Your task to perform on an android device: Open Google Chrome and open the bookmarks view Image 0: 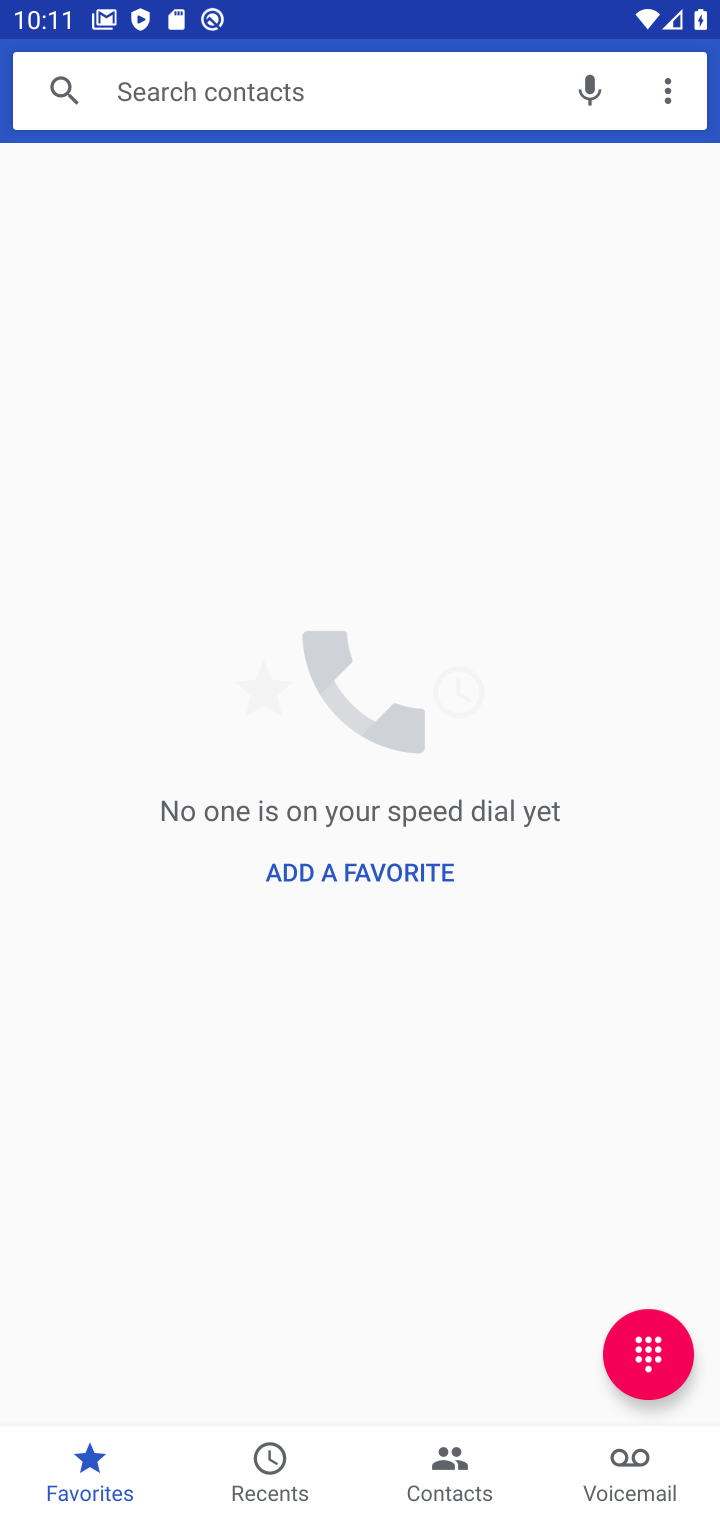
Step 0: press back button
Your task to perform on an android device: Open Google Chrome and open the bookmarks view Image 1: 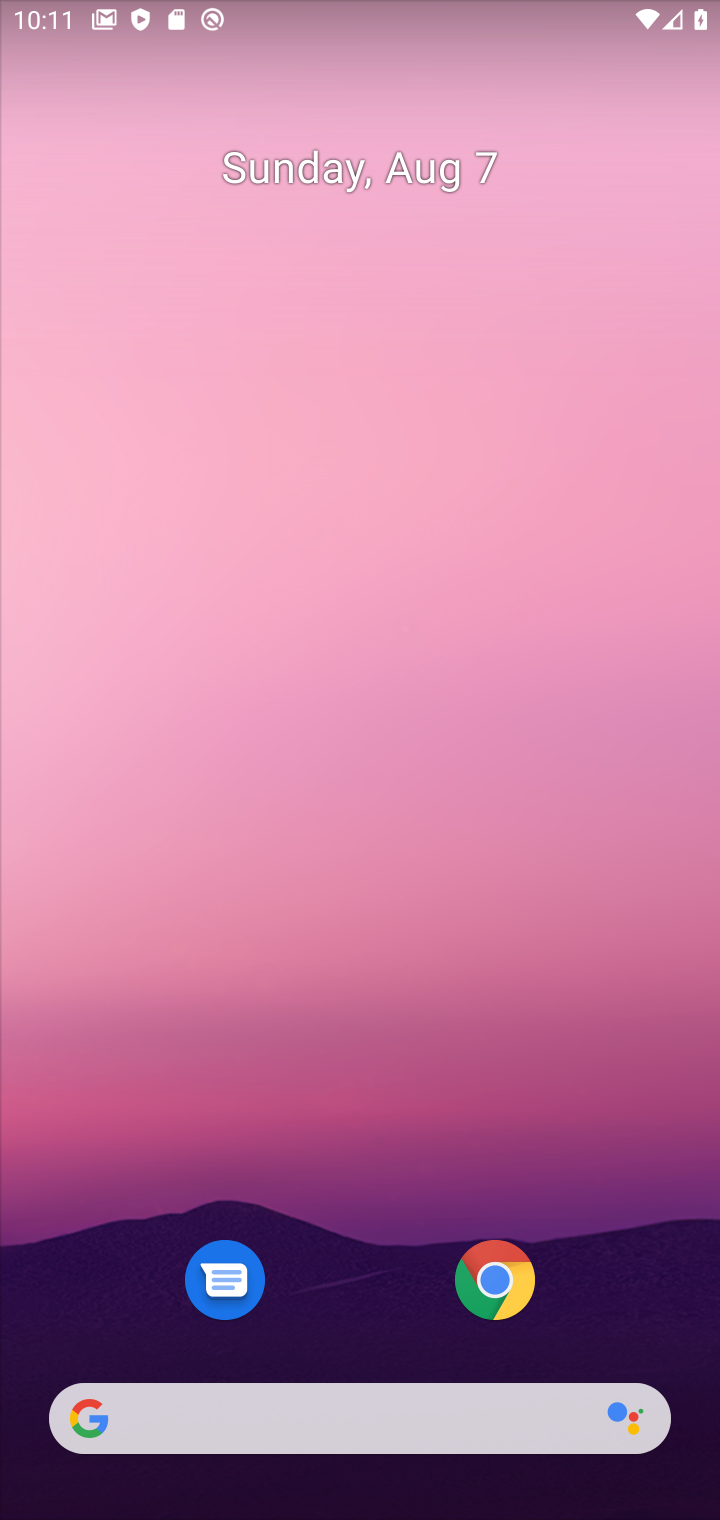
Step 1: click (520, 1259)
Your task to perform on an android device: Open Google Chrome and open the bookmarks view Image 2: 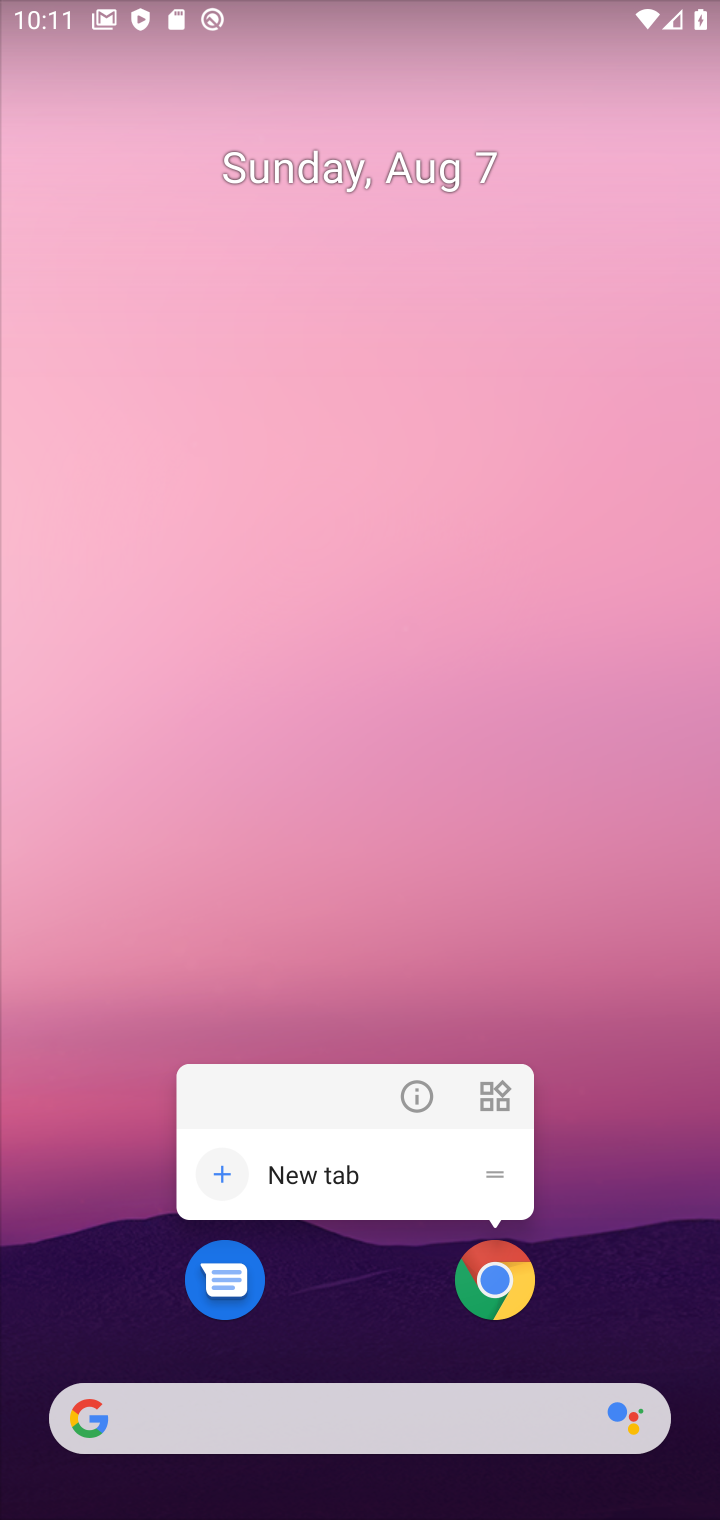
Step 2: click (487, 1261)
Your task to perform on an android device: Open Google Chrome and open the bookmarks view Image 3: 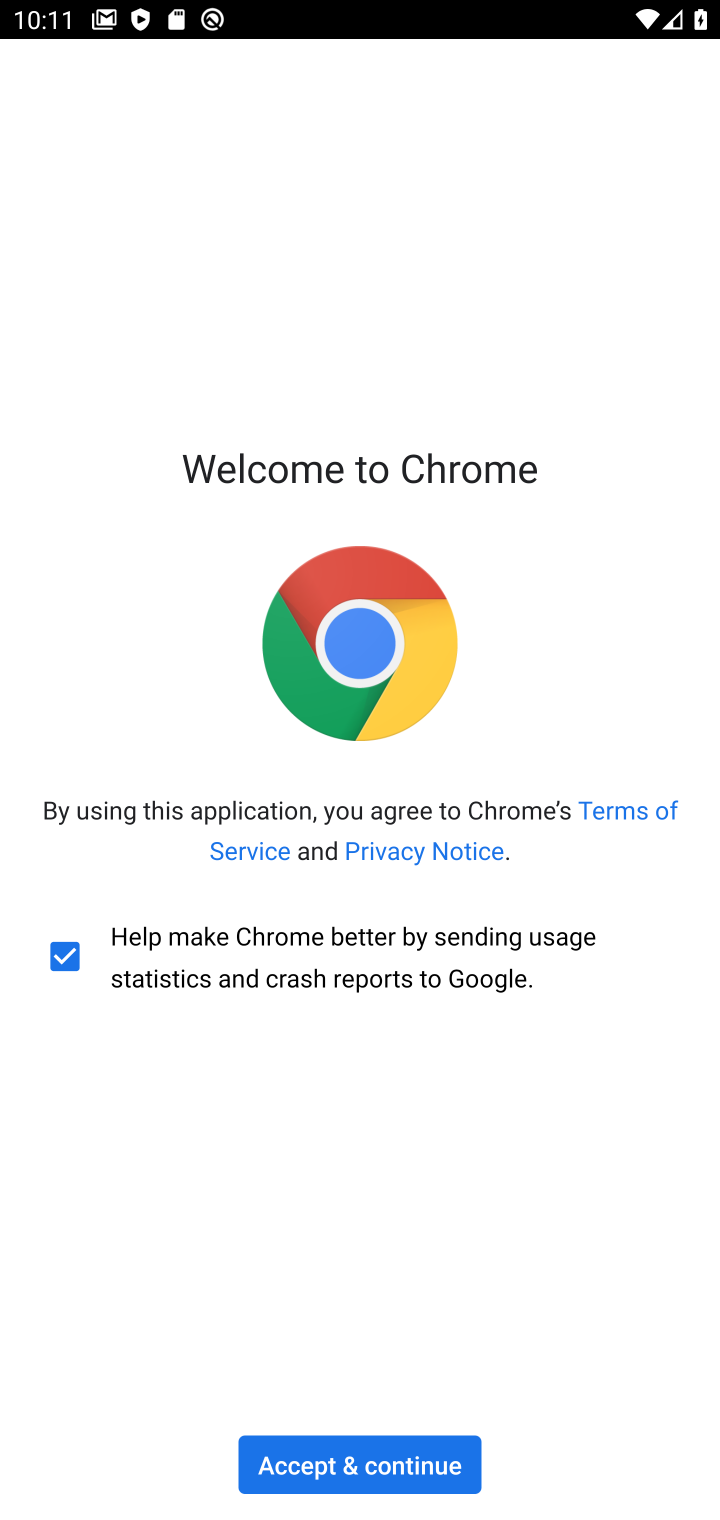
Step 3: click (300, 1468)
Your task to perform on an android device: Open Google Chrome and open the bookmarks view Image 4: 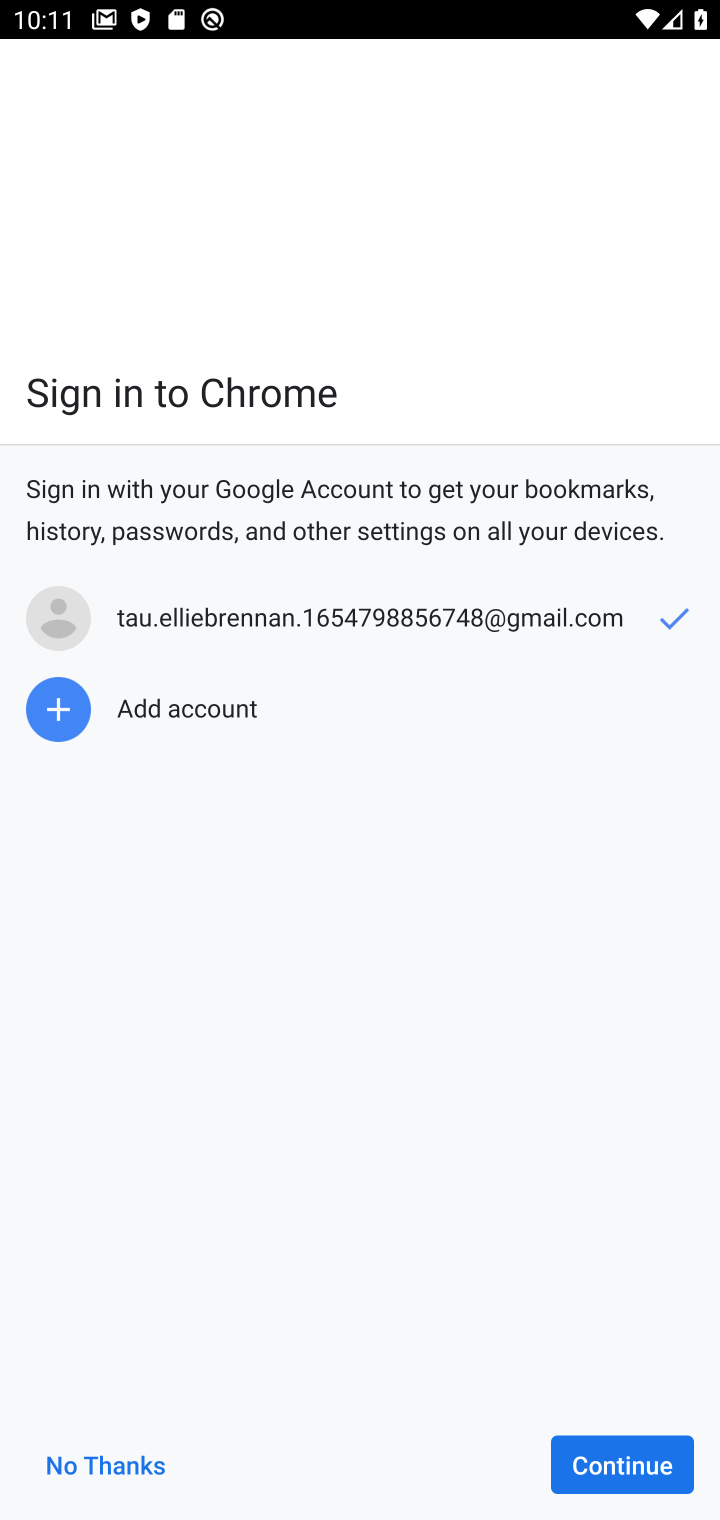
Step 4: click (613, 1457)
Your task to perform on an android device: Open Google Chrome and open the bookmarks view Image 5: 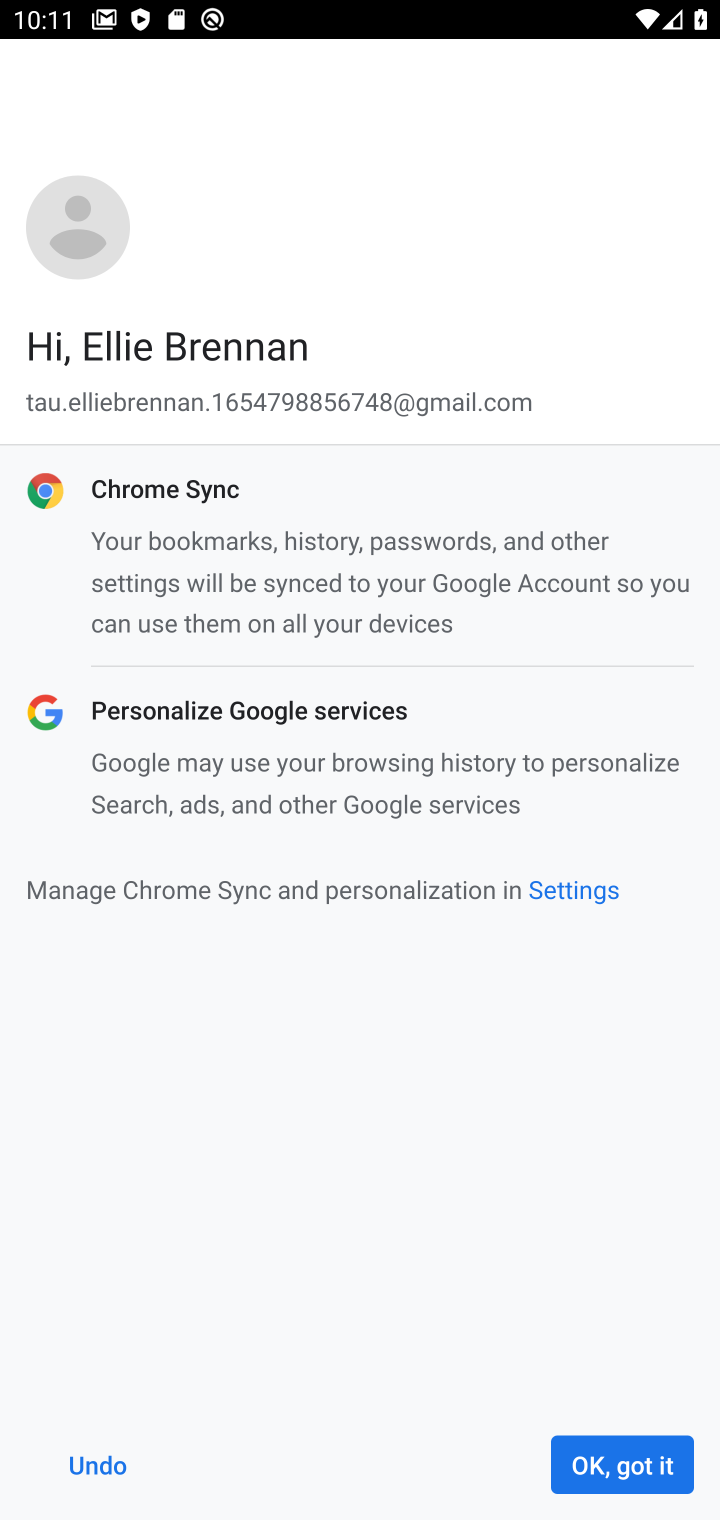
Step 5: click (618, 1462)
Your task to perform on an android device: Open Google Chrome and open the bookmarks view Image 6: 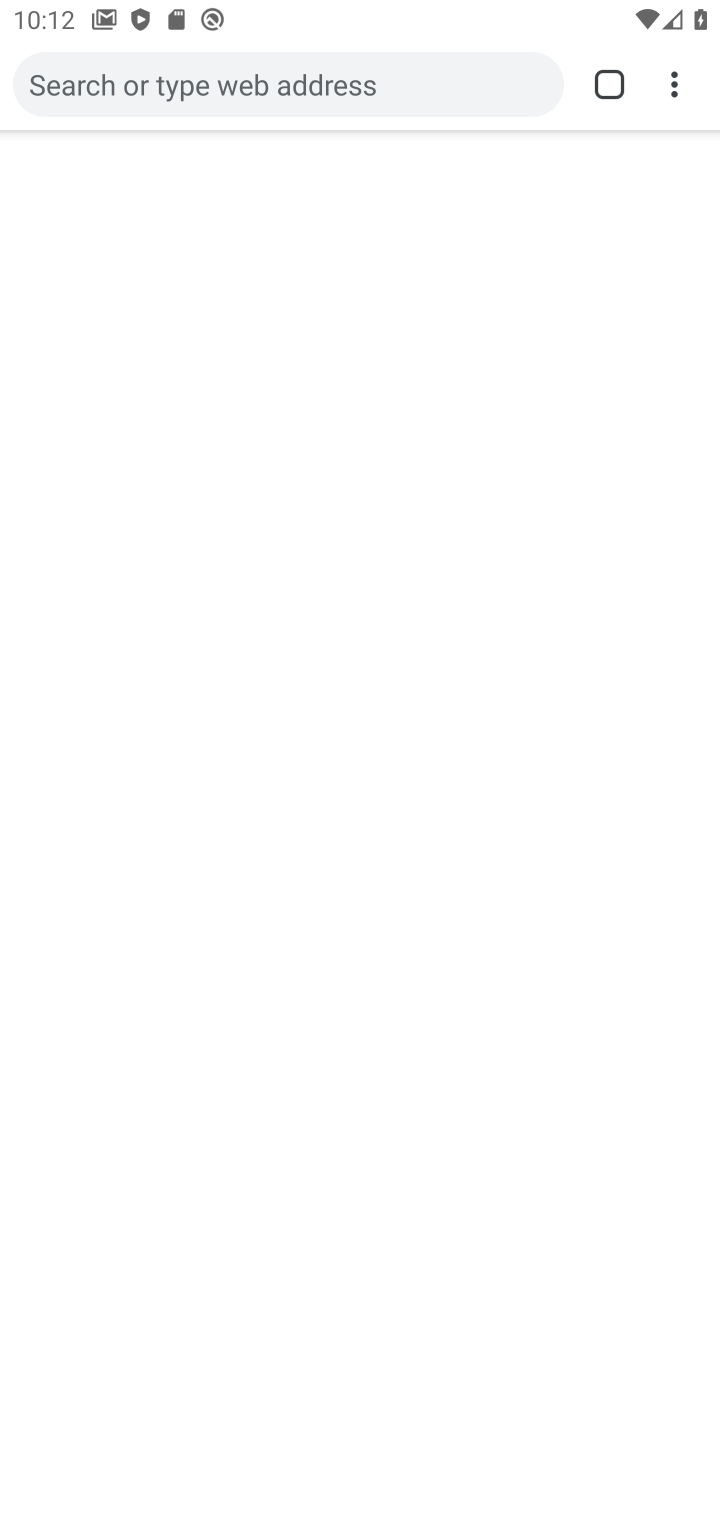
Step 6: task complete